Your task to perform on an android device: turn off wifi Image 0: 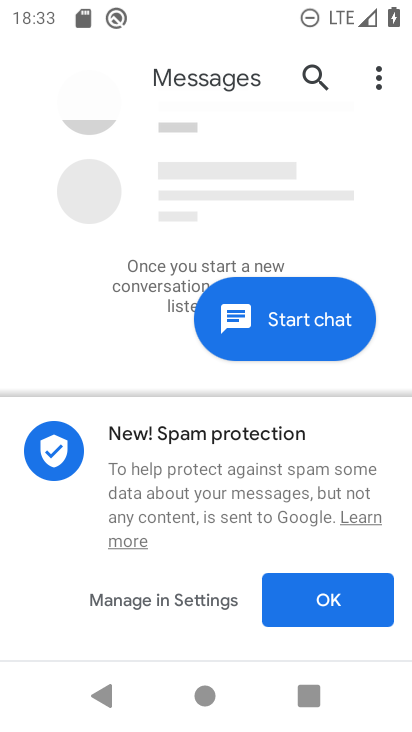
Step 0: press home button
Your task to perform on an android device: turn off wifi Image 1: 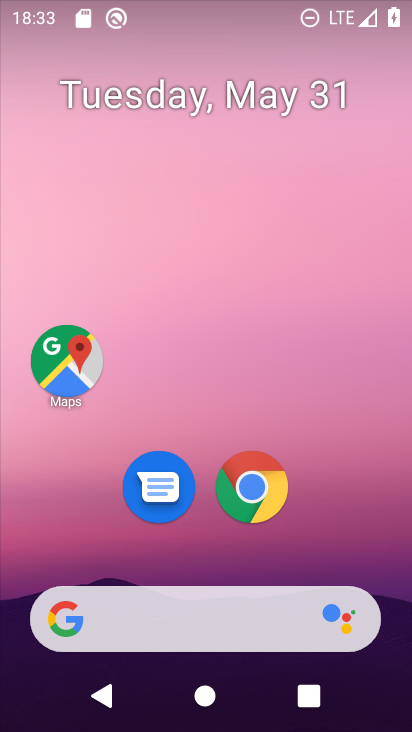
Step 1: drag from (327, 509) to (229, 132)
Your task to perform on an android device: turn off wifi Image 2: 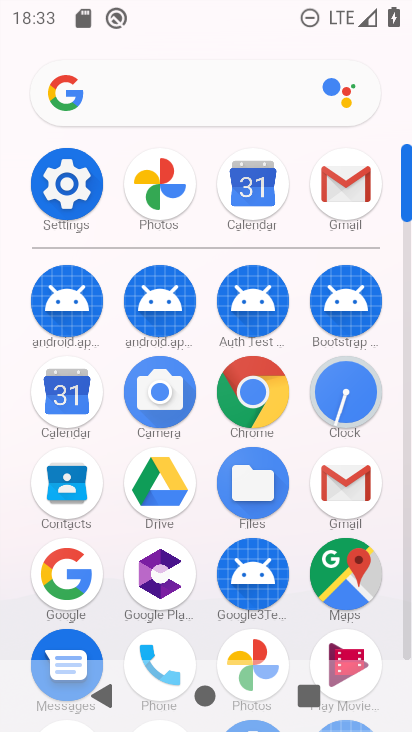
Step 2: click (71, 178)
Your task to perform on an android device: turn off wifi Image 3: 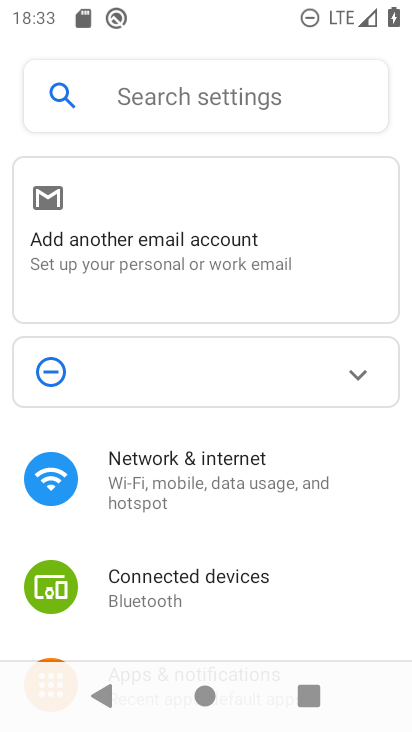
Step 3: click (172, 463)
Your task to perform on an android device: turn off wifi Image 4: 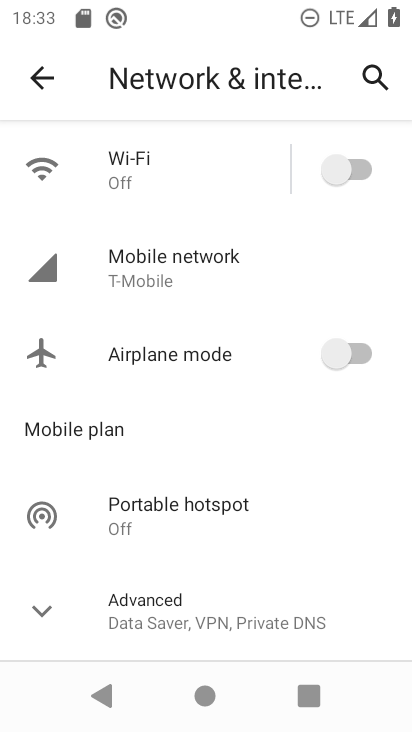
Step 4: task complete